Your task to perform on an android device: open app "PUBG MOBILE" Image 0: 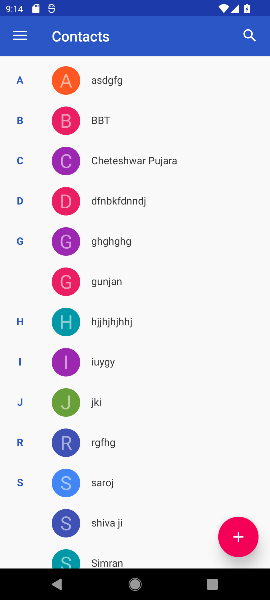
Step 0: task impossible